Your task to perform on an android device: Open internet settings Image 0: 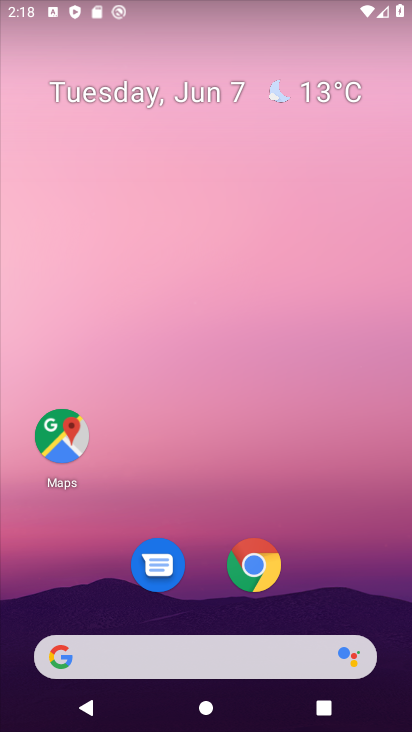
Step 0: drag from (193, 596) to (184, 303)
Your task to perform on an android device: Open internet settings Image 1: 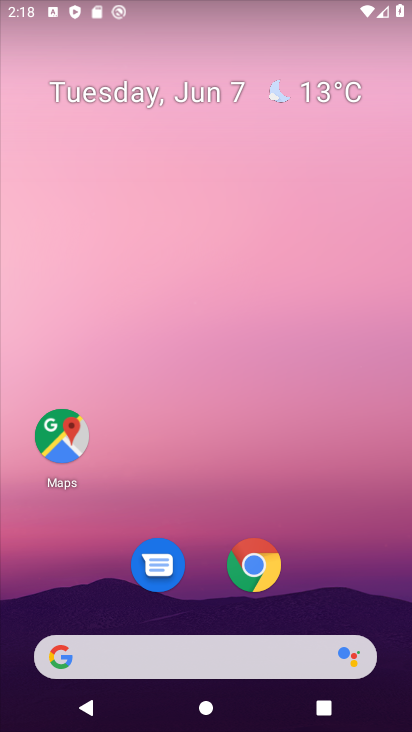
Step 1: drag from (198, 583) to (200, 132)
Your task to perform on an android device: Open internet settings Image 2: 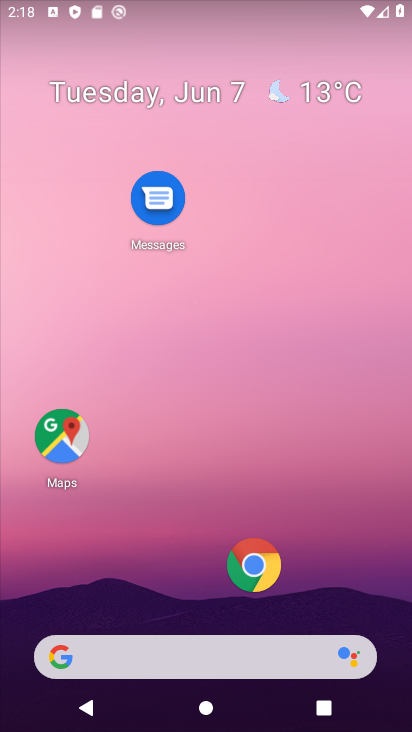
Step 2: drag from (218, 597) to (190, 43)
Your task to perform on an android device: Open internet settings Image 3: 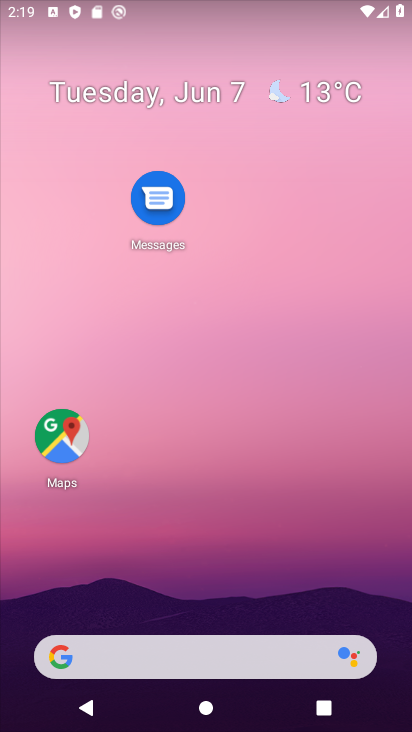
Step 3: drag from (192, 588) to (154, 40)
Your task to perform on an android device: Open internet settings Image 4: 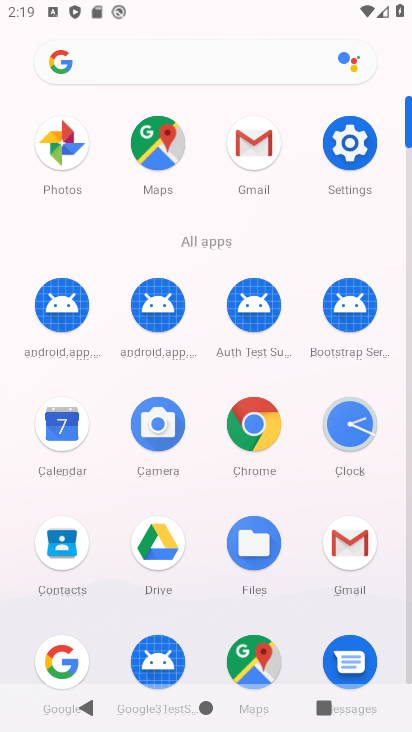
Step 4: click (349, 166)
Your task to perform on an android device: Open internet settings Image 5: 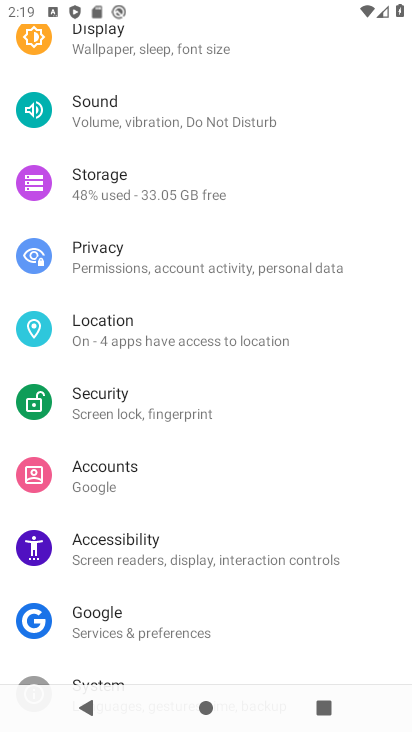
Step 5: drag from (167, 158) to (128, 626)
Your task to perform on an android device: Open internet settings Image 6: 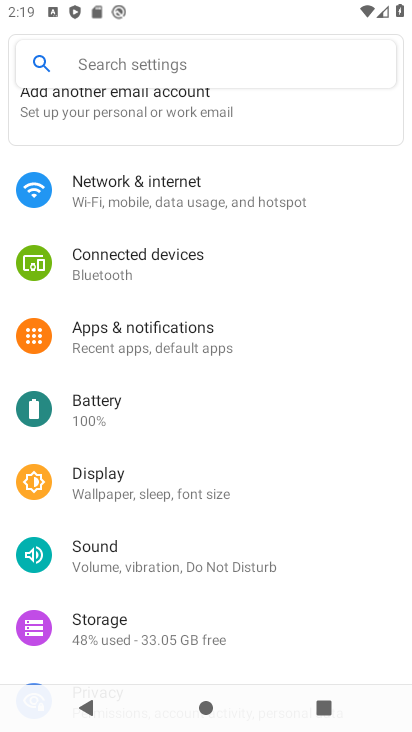
Step 6: click (178, 201)
Your task to perform on an android device: Open internet settings Image 7: 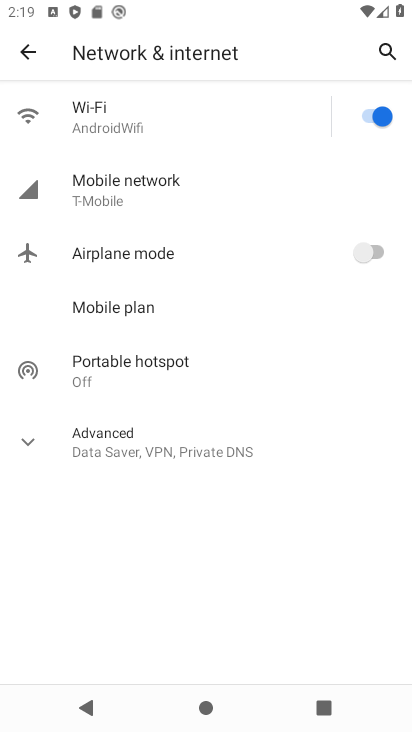
Step 7: task complete